Your task to perform on an android device: clear all cookies in the chrome app Image 0: 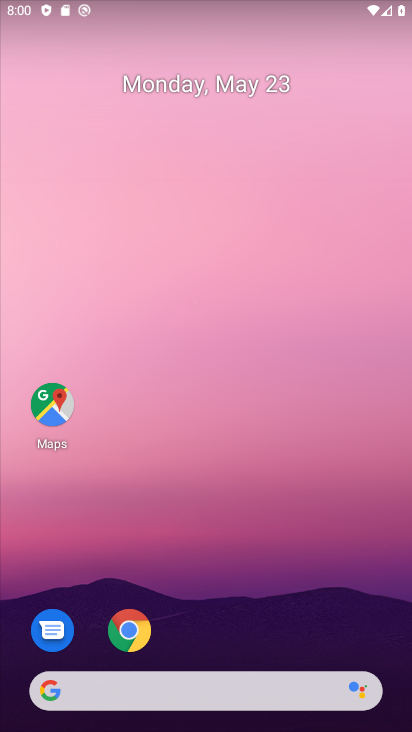
Step 0: drag from (204, 647) to (337, 3)
Your task to perform on an android device: clear all cookies in the chrome app Image 1: 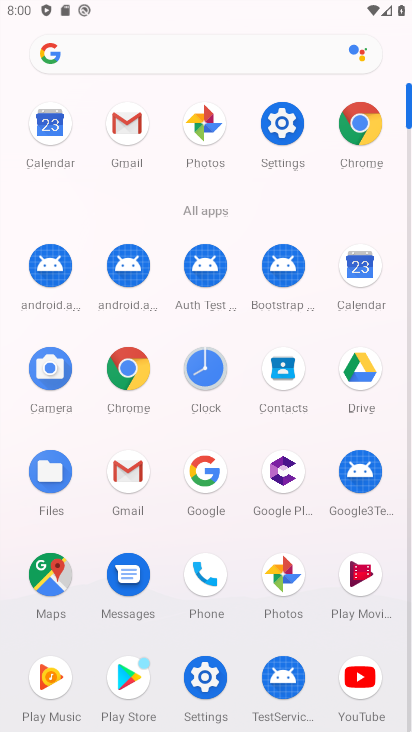
Step 1: click (353, 173)
Your task to perform on an android device: clear all cookies in the chrome app Image 2: 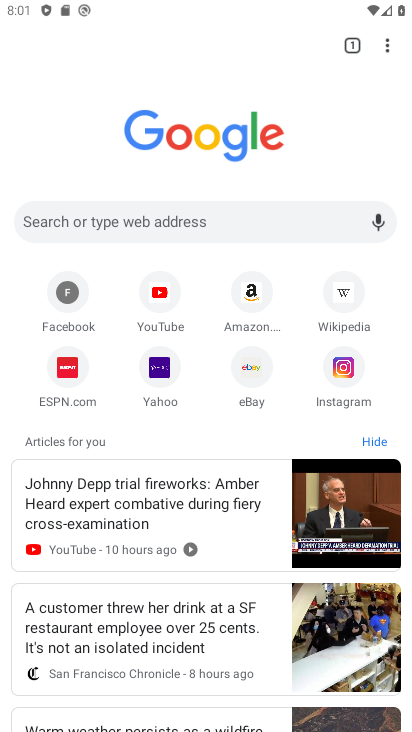
Step 2: click (389, 47)
Your task to perform on an android device: clear all cookies in the chrome app Image 3: 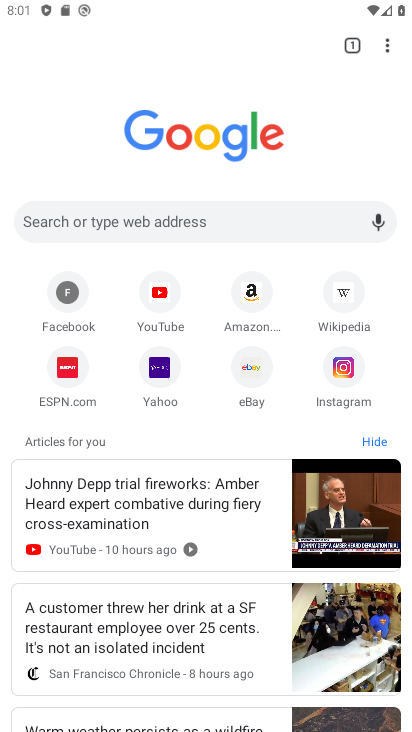
Step 3: click (387, 49)
Your task to perform on an android device: clear all cookies in the chrome app Image 4: 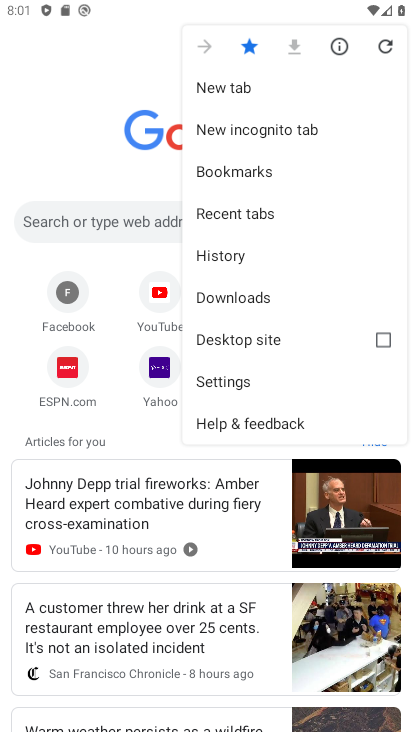
Step 4: click (245, 257)
Your task to perform on an android device: clear all cookies in the chrome app Image 5: 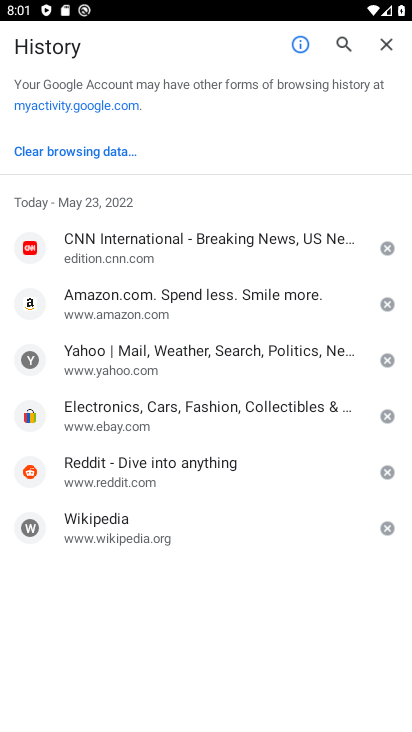
Step 5: click (85, 152)
Your task to perform on an android device: clear all cookies in the chrome app Image 6: 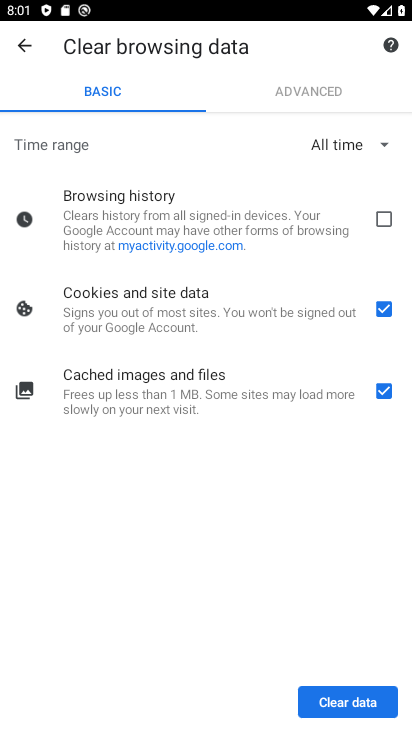
Step 6: click (382, 394)
Your task to perform on an android device: clear all cookies in the chrome app Image 7: 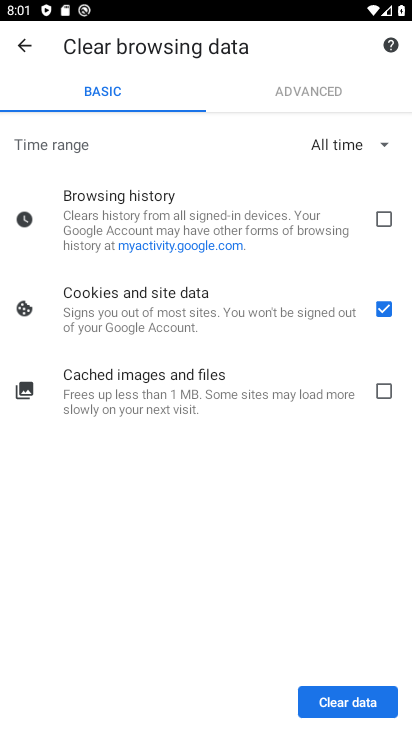
Step 7: click (345, 705)
Your task to perform on an android device: clear all cookies in the chrome app Image 8: 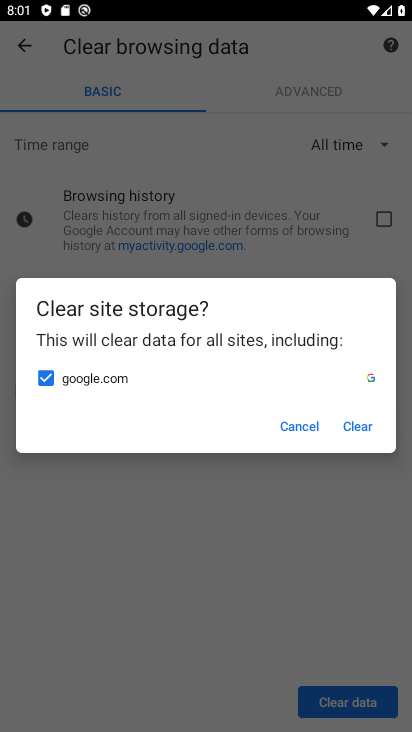
Step 8: click (362, 420)
Your task to perform on an android device: clear all cookies in the chrome app Image 9: 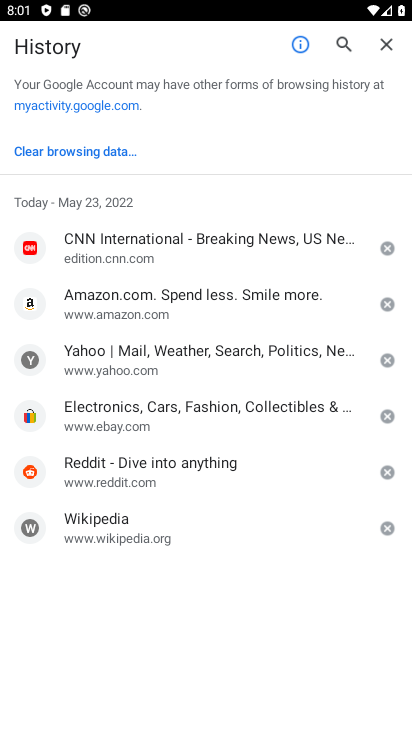
Step 9: task complete